Your task to perform on an android device: Go to battery settings Image 0: 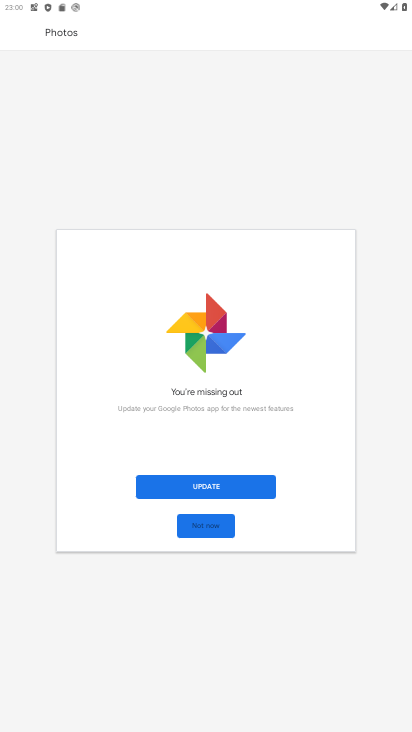
Step 0: press home button
Your task to perform on an android device: Go to battery settings Image 1: 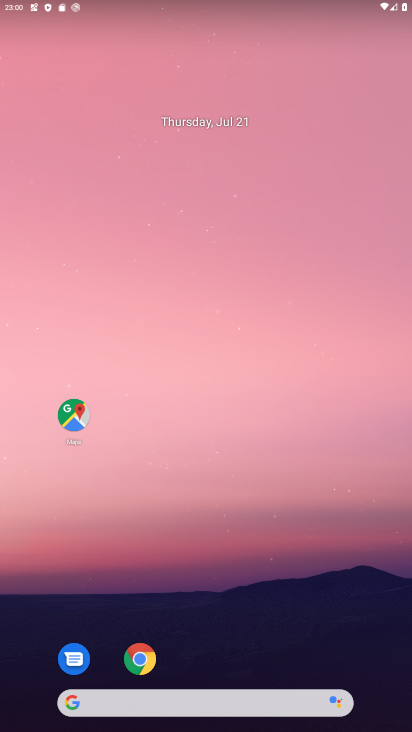
Step 1: drag from (253, 598) to (232, 80)
Your task to perform on an android device: Go to battery settings Image 2: 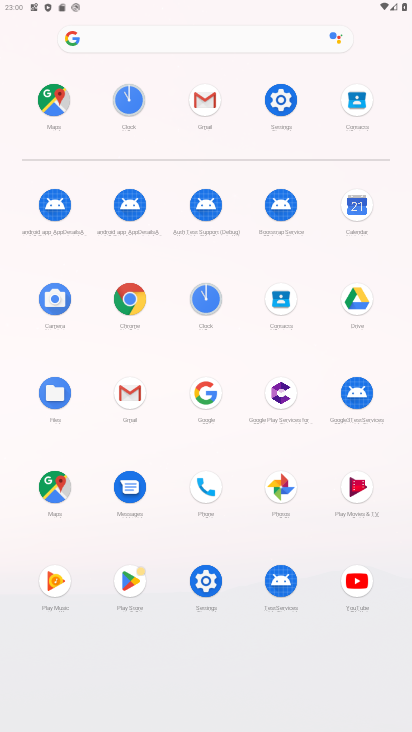
Step 2: click (286, 90)
Your task to perform on an android device: Go to battery settings Image 3: 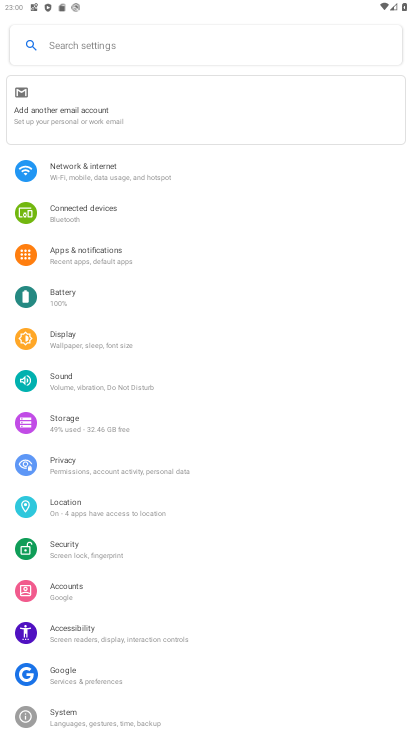
Step 3: click (70, 292)
Your task to perform on an android device: Go to battery settings Image 4: 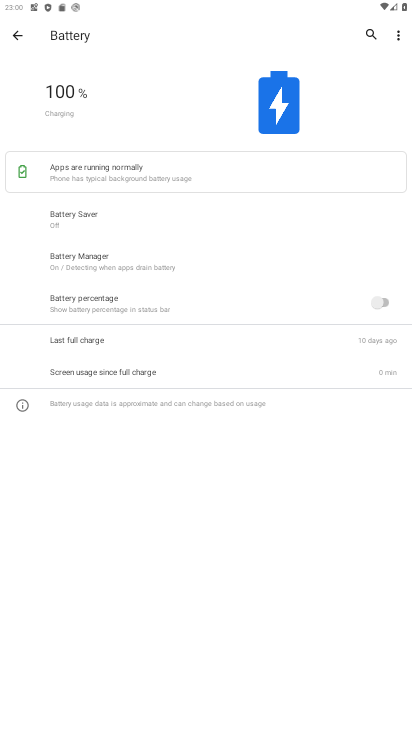
Step 4: task complete